Your task to perform on an android device: set the stopwatch Image 0: 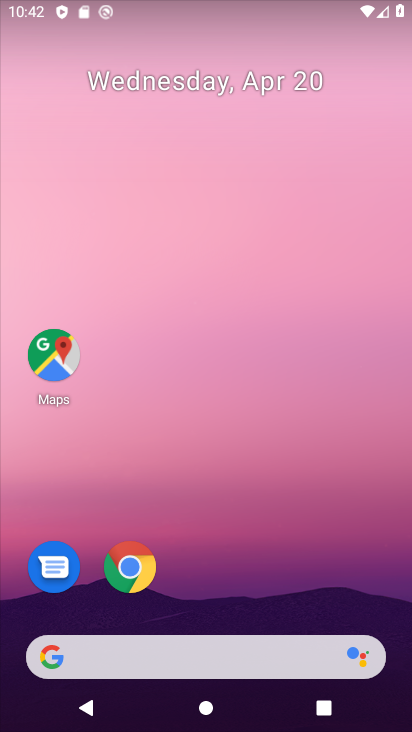
Step 0: drag from (256, 600) to (287, 128)
Your task to perform on an android device: set the stopwatch Image 1: 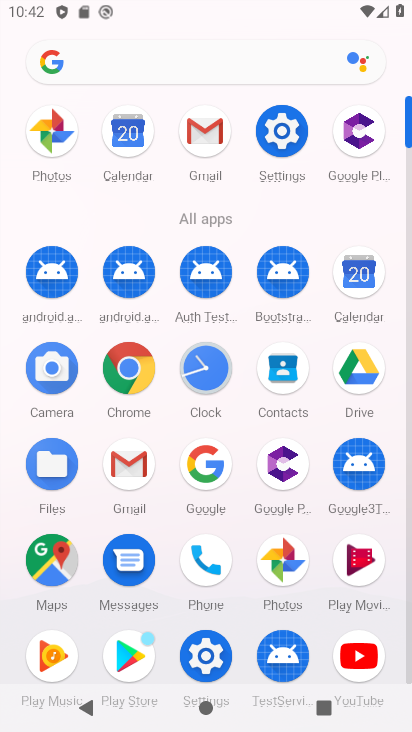
Step 1: click (209, 374)
Your task to perform on an android device: set the stopwatch Image 2: 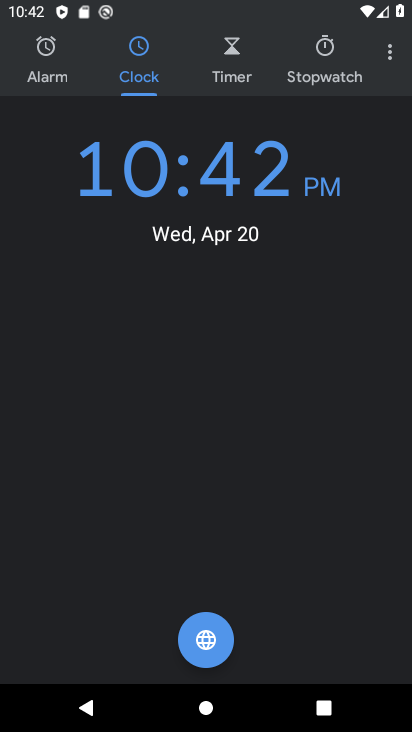
Step 2: click (301, 69)
Your task to perform on an android device: set the stopwatch Image 3: 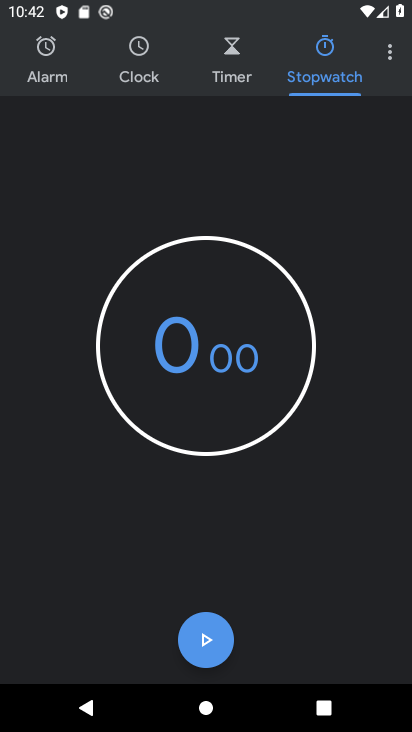
Step 3: click (207, 637)
Your task to perform on an android device: set the stopwatch Image 4: 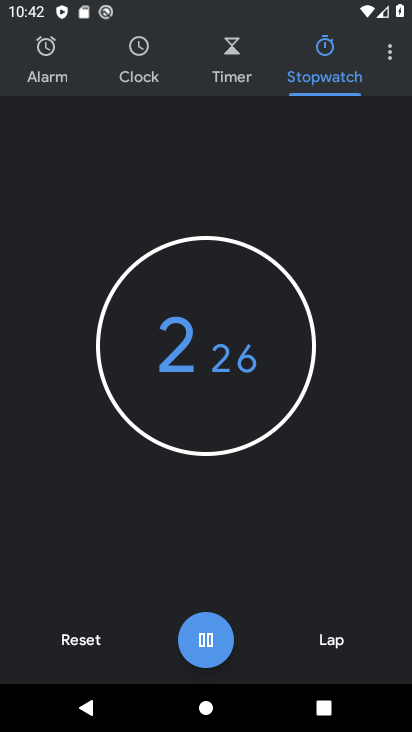
Step 4: task complete